Your task to perform on an android device: Show me recent news Image 0: 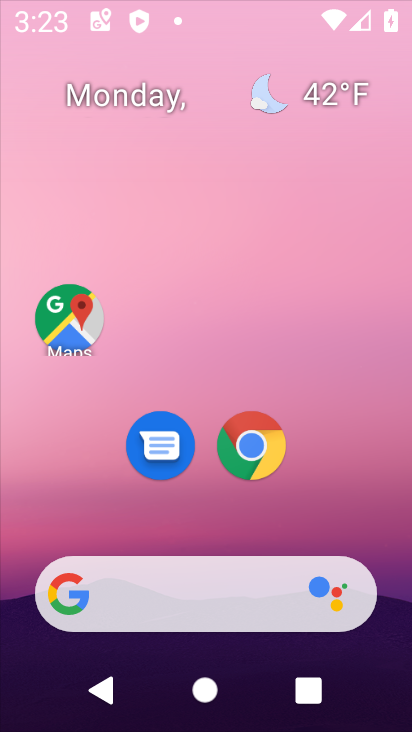
Step 0: drag from (18, 504) to (214, 11)
Your task to perform on an android device: Show me recent news Image 1: 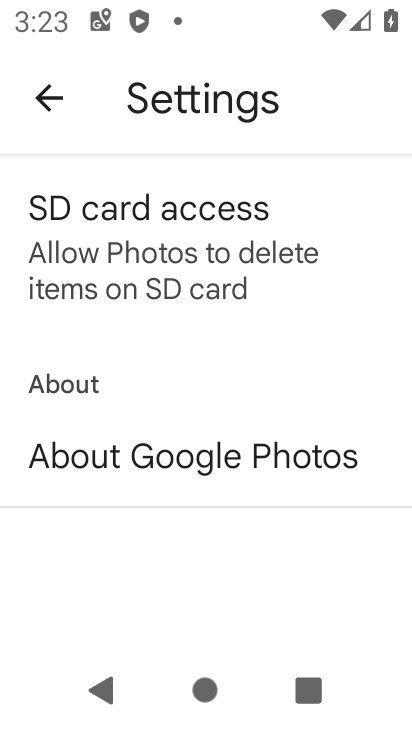
Step 1: press home button
Your task to perform on an android device: Show me recent news Image 2: 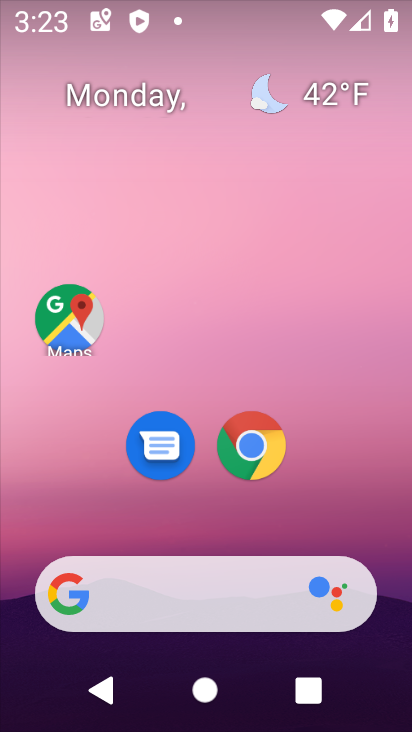
Step 2: drag from (12, 468) to (195, 22)
Your task to perform on an android device: Show me recent news Image 3: 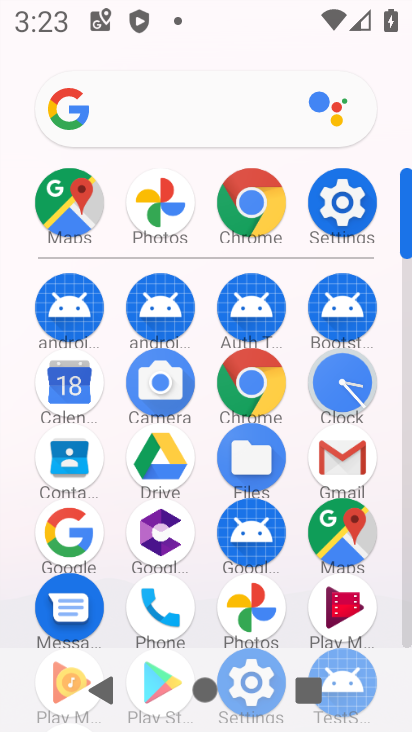
Step 3: click (267, 200)
Your task to perform on an android device: Show me recent news Image 4: 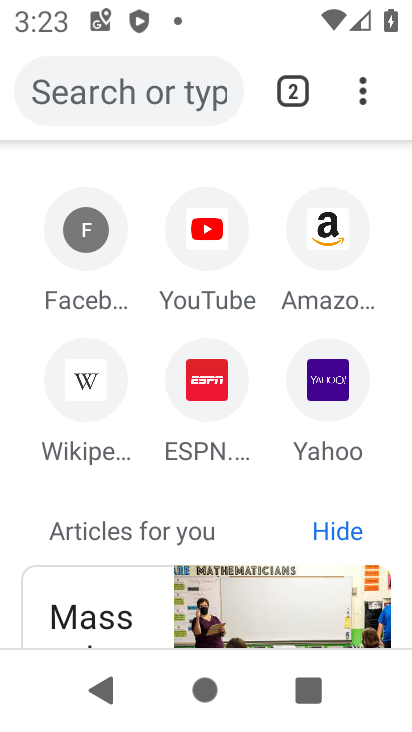
Step 4: drag from (135, 546) to (180, 175)
Your task to perform on an android device: Show me recent news Image 5: 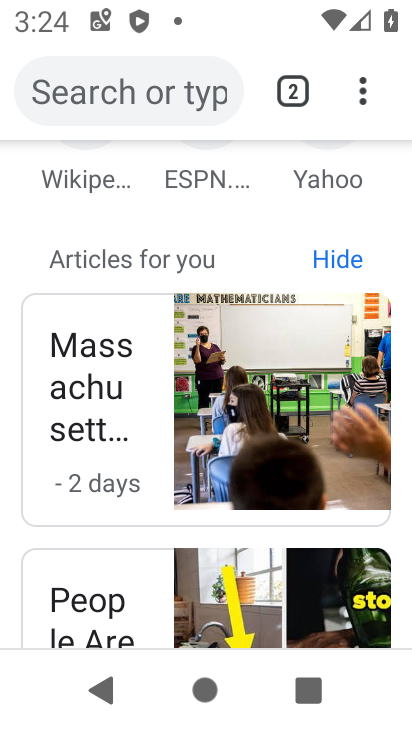
Step 5: click (280, 87)
Your task to perform on an android device: Show me recent news Image 6: 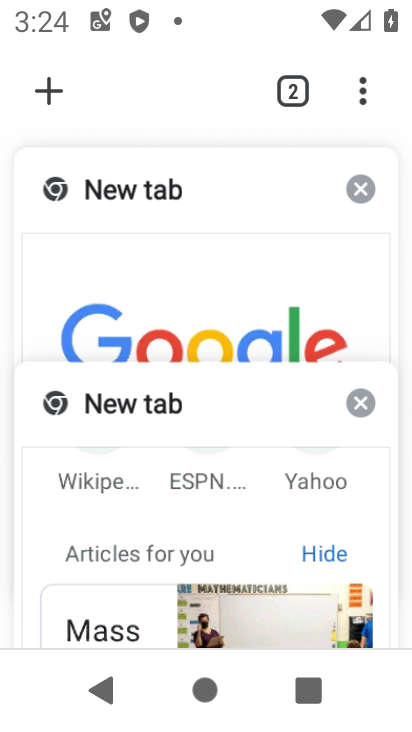
Step 6: click (362, 191)
Your task to perform on an android device: Show me recent news Image 7: 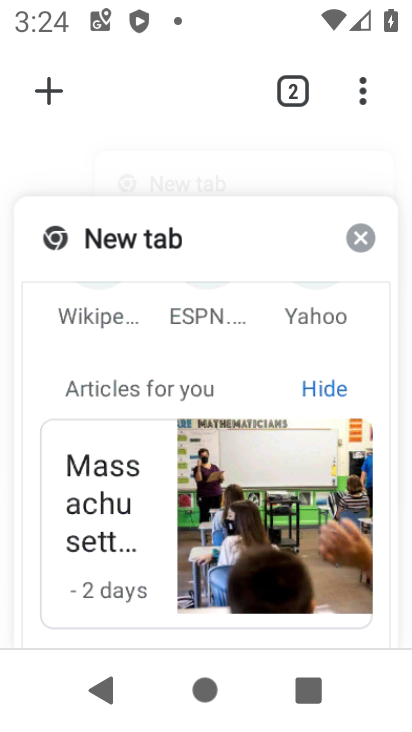
Step 7: click (139, 511)
Your task to perform on an android device: Show me recent news Image 8: 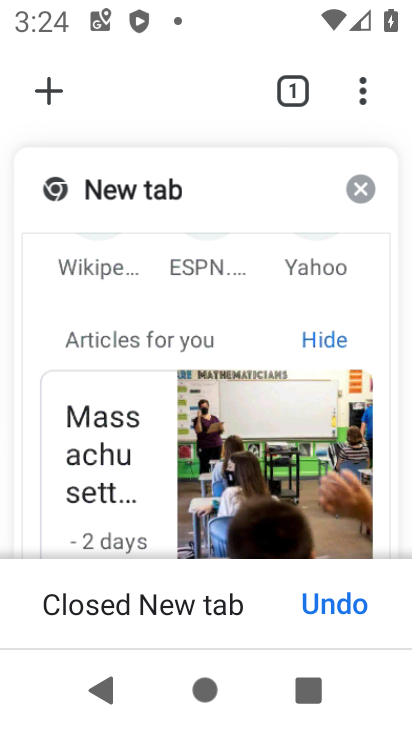
Step 8: click (135, 484)
Your task to perform on an android device: Show me recent news Image 9: 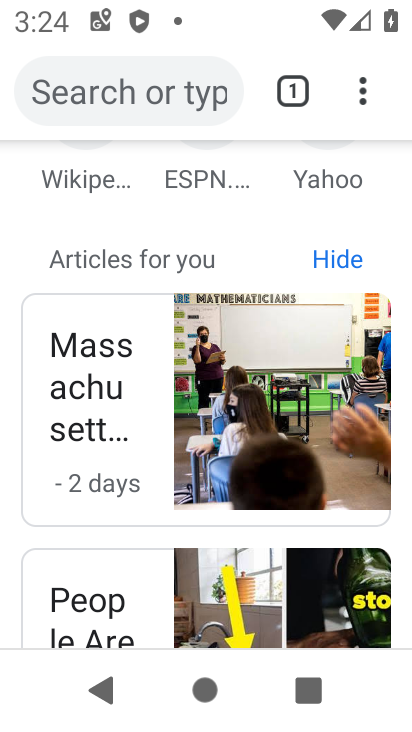
Step 9: click (126, 382)
Your task to perform on an android device: Show me recent news Image 10: 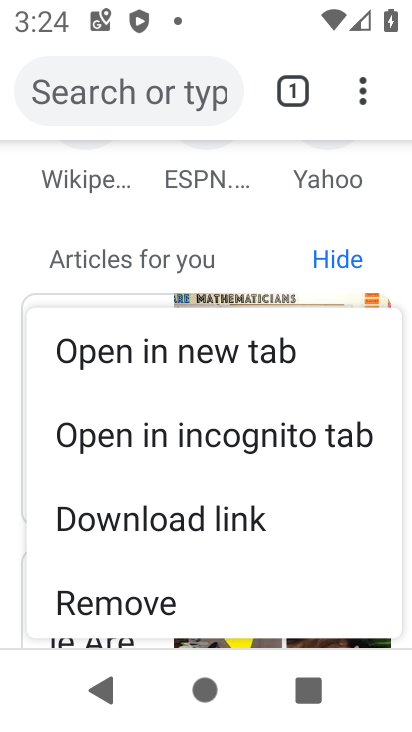
Step 10: click (229, 283)
Your task to perform on an android device: Show me recent news Image 11: 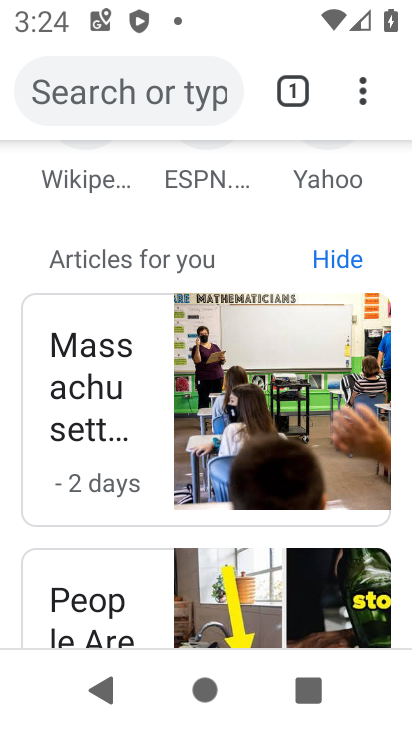
Step 11: click (96, 417)
Your task to perform on an android device: Show me recent news Image 12: 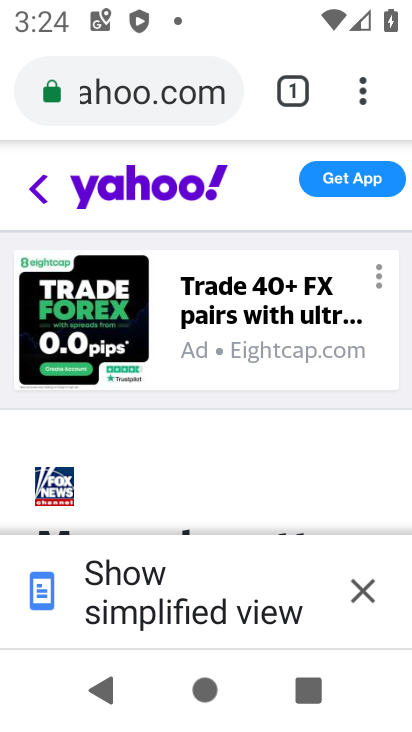
Step 12: task complete